Your task to perform on an android device: see creations saved in the google photos Image 0: 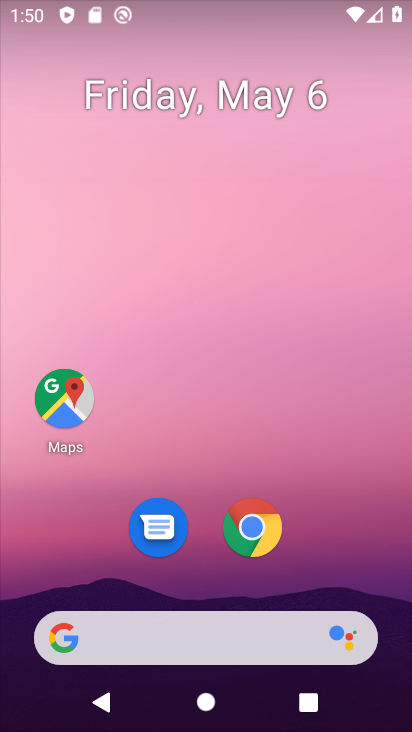
Step 0: drag from (334, 531) to (371, 79)
Your task to perform on an android device: see creations saved in the google photos Image 1: 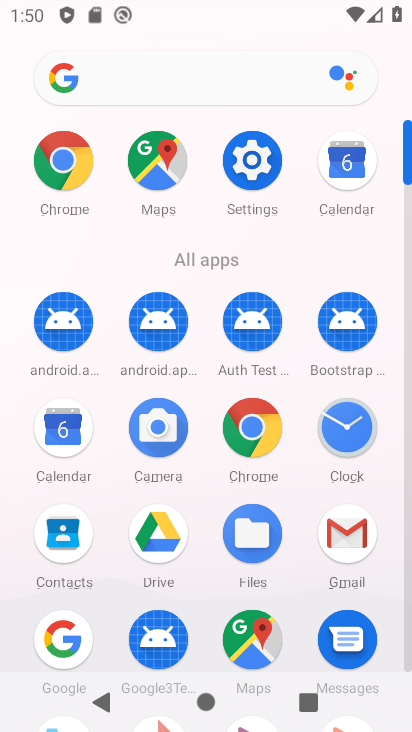
Step 1: drag from (306, 272) to (323, 38)
Your task to perform on an android device: see creations saved in the google photos Image 2: 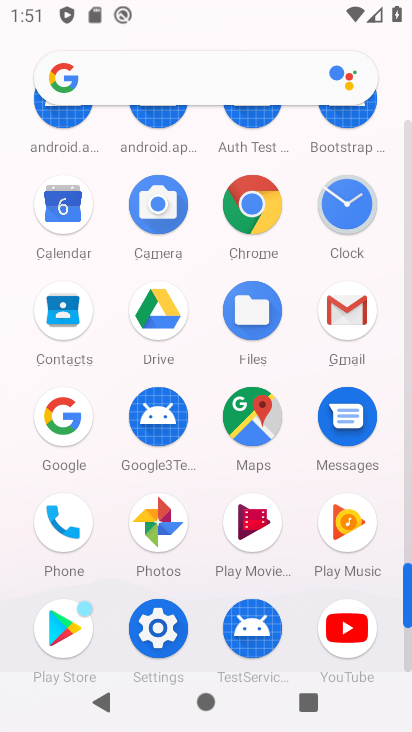
Step 2: click (164, 520)
Your task to perform on an android device: see creations saved in the google photos Image 3: 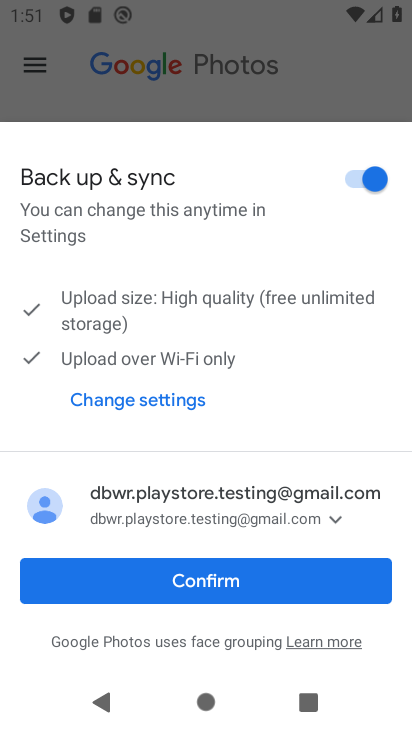
Step 3: click (258, 577)
Your task to perform on an android device: see creations saved in the google photos Image 4: 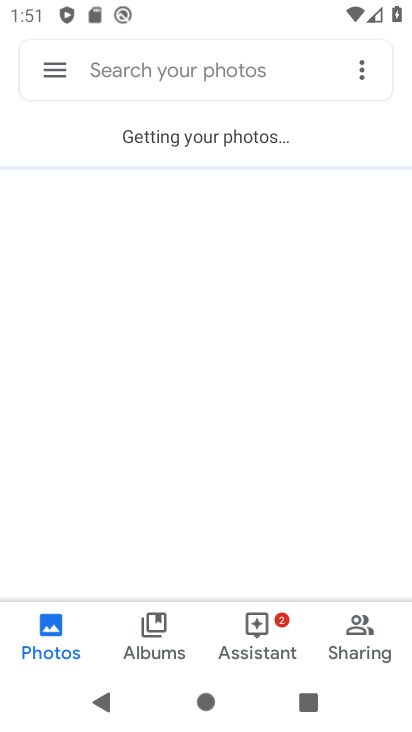
Step 4: click (144, 77)
Your task to perform on an android device: see creations saved in the google photos Image 5: 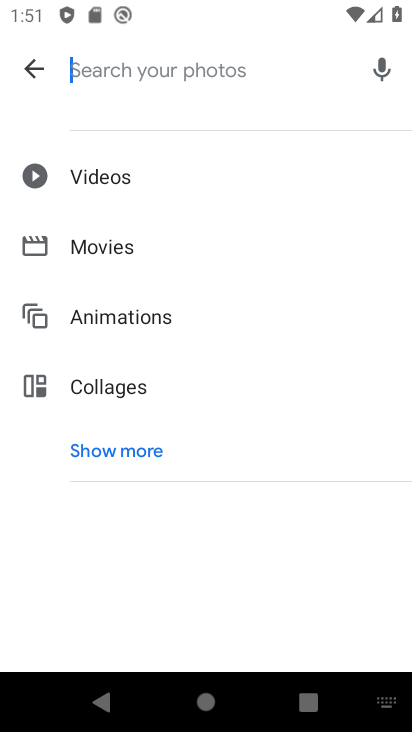
Step 5: click (102, 456)
Your task to perform on an android device: see creations saved in the google photos Image 6: 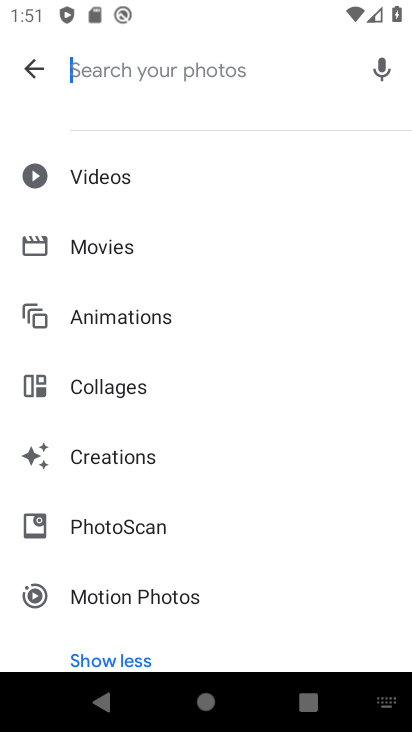
Step 6: click (102, 456)
Your task to perform on an android device: see creations saved in the google photos Image 7: 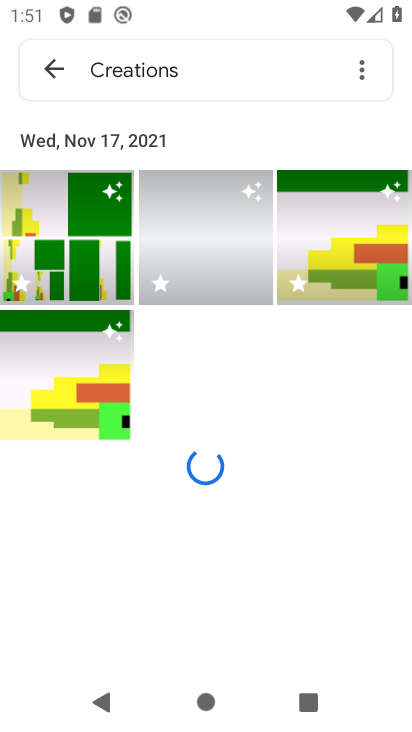
Step 7: task complete